Your task to perform on an android device: turn off translation in the chrome app Image 0: 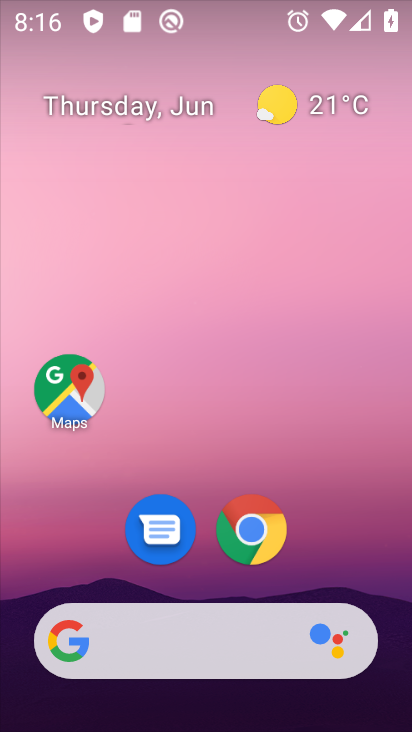
Step 0: drag from (391, 687) to (388, 227)
Your task to perform on an android device: turn off translation in the chrome app Image 1: 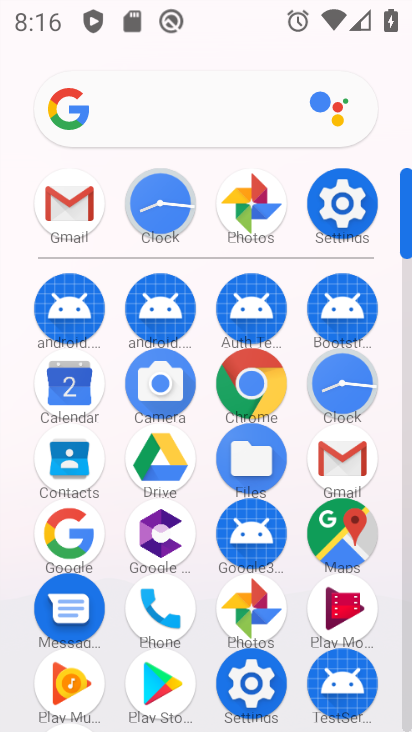
Step 1: click (242, 384)
Your task to perform on an android device: turn off translation in the chrome app Image 2: 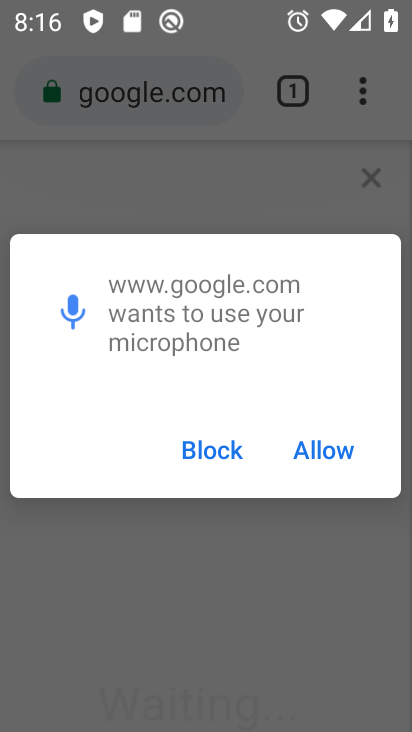
Step 2: click (314, 455)
Your task to perform on an android device: turn off translation in the chrome app Image 3: 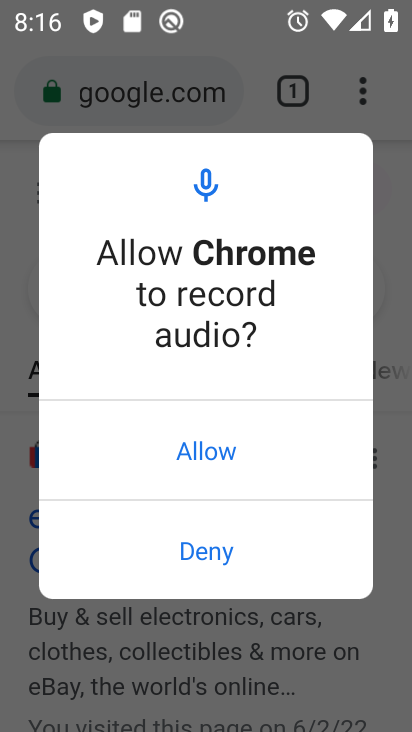
Step 3: click (364, 88)
Your task to perform on an android device: turn off translation in the chrome app Image 4: 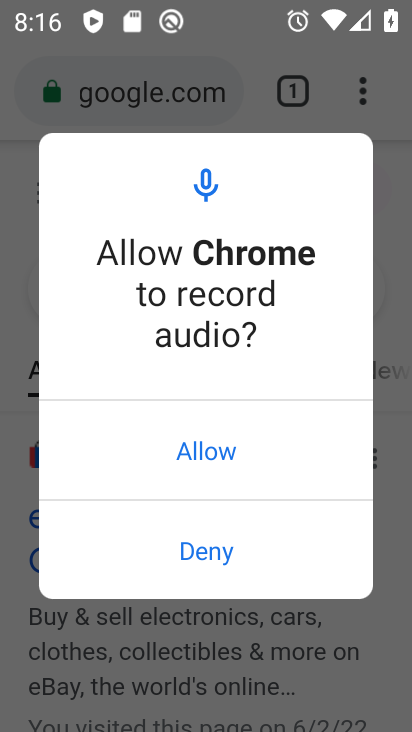
Step 4: click (220, 445)
Your task to perform on an android device: turn off translation in the chrome app Image 5: 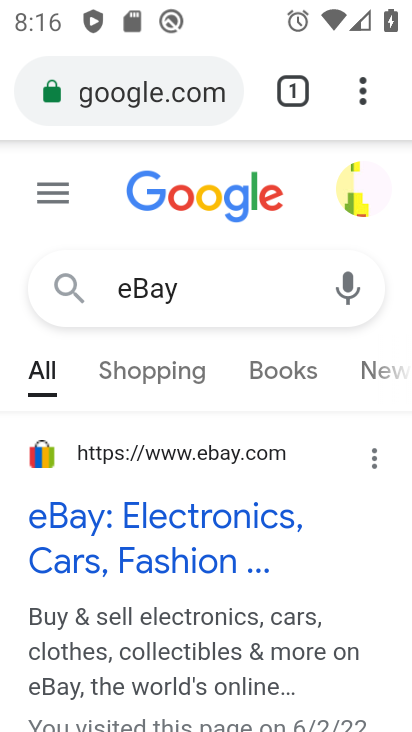
Step 5: click (357, 86)
Your task to perform on an android device: turn off translation in the chrome app Image 6: 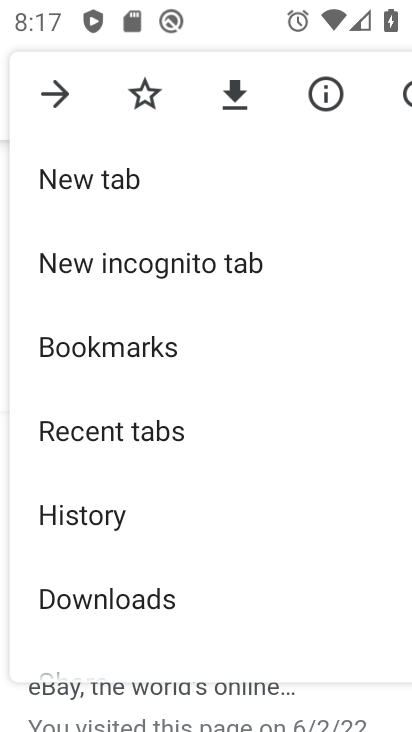
Step 6: drag from (247, 636) to (296, 336)
Your task to perform on an android device: turn off translation in the chrome app Image 7: 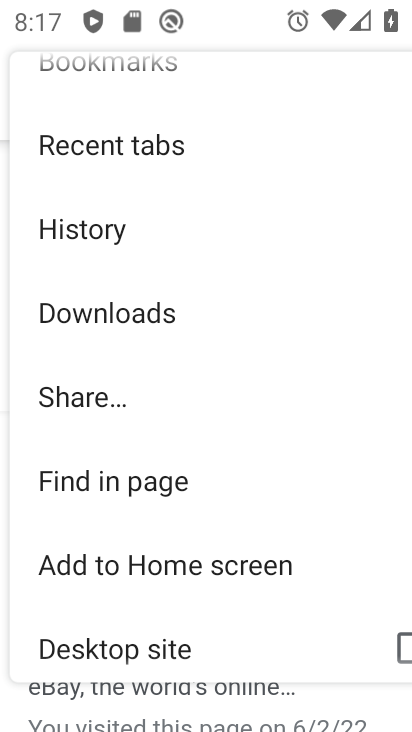
Step 7: drag from (289, 616) to (312, 281)
Your task to perform on an android device: turn off translation in the chrome app Image 8: 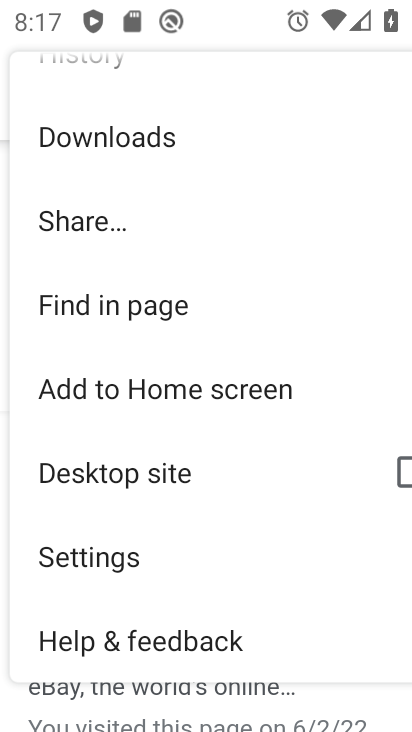
Step 8: click (116, 549)
Your task to perform on an android device: turn off translation in the chrome app Image 9: 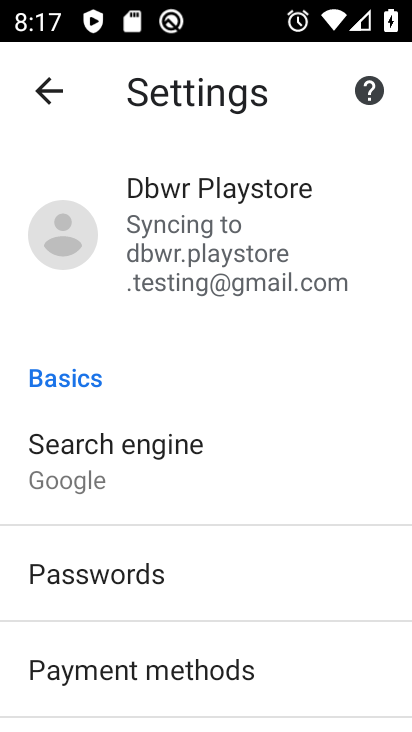
Step 9: drag from (294, 699) to (291, 280)
Your task to perform on an android device: turn off translation in the chrome app Image 10: 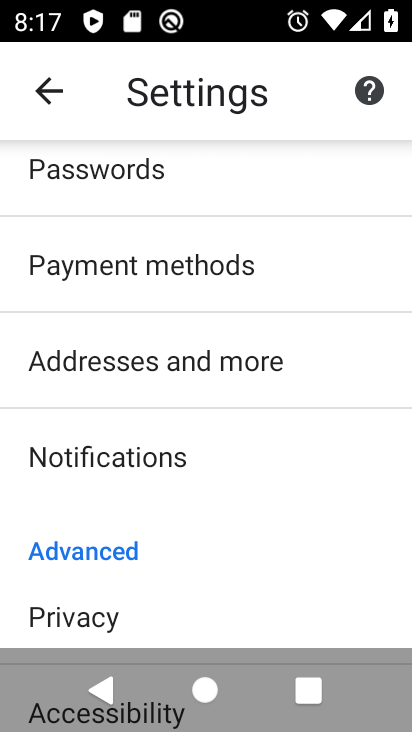
Step 10: drag from (277, 620) to (273, 138)
Your task to perform on an android device: turn off translation in the chrome app Image 11: 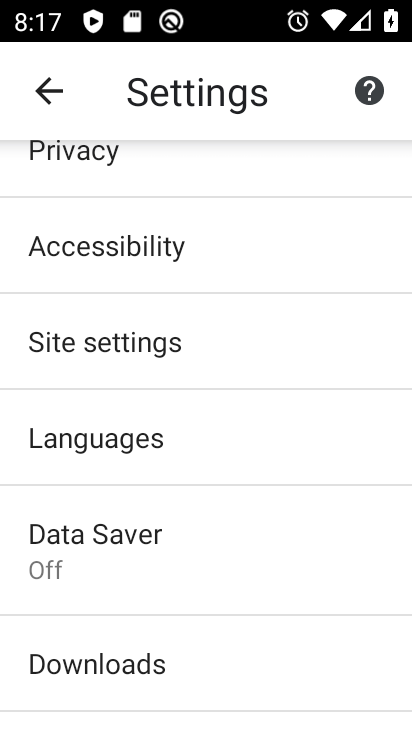
Step 11: click (97, 436)
Your task to perform on an android device: turn off translation in the chrome app Image 12: 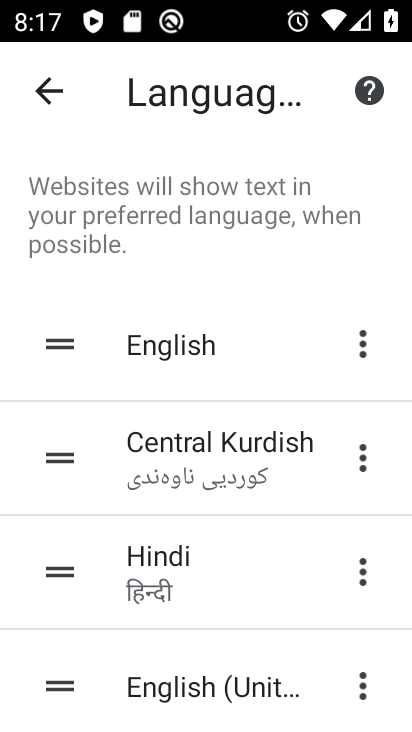
Step 12: task complete